Your task to perform on an android device: turn off sleep mode Image 0: 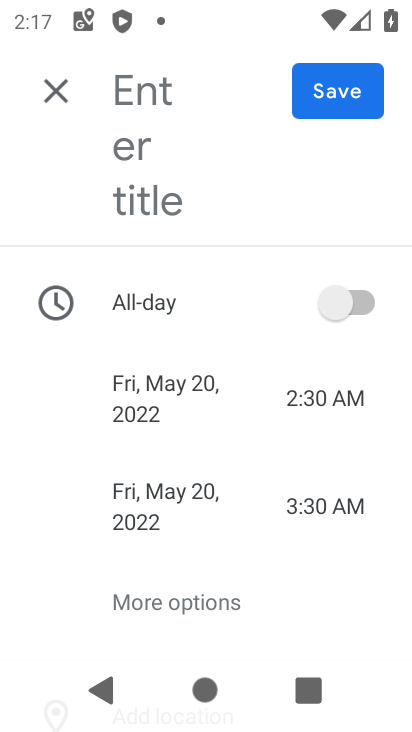
Step 0: press home button
Your task to perform on an android device: turn off sleep mode Image 1: 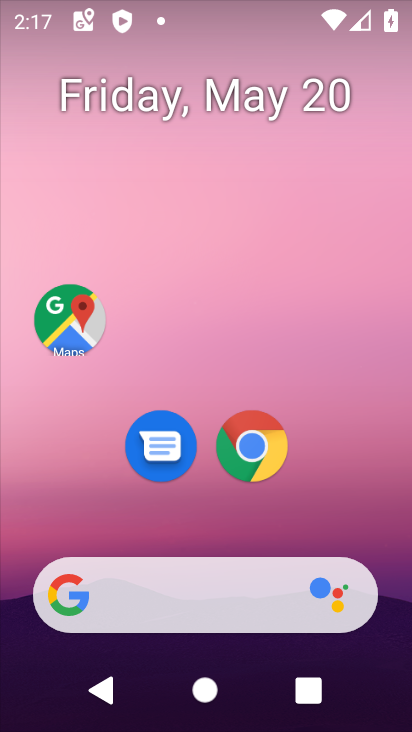
Step 1: drag from (353, 542) to (340, 30)
Your task to perform on an android device: turn off sleep mode Image 2: 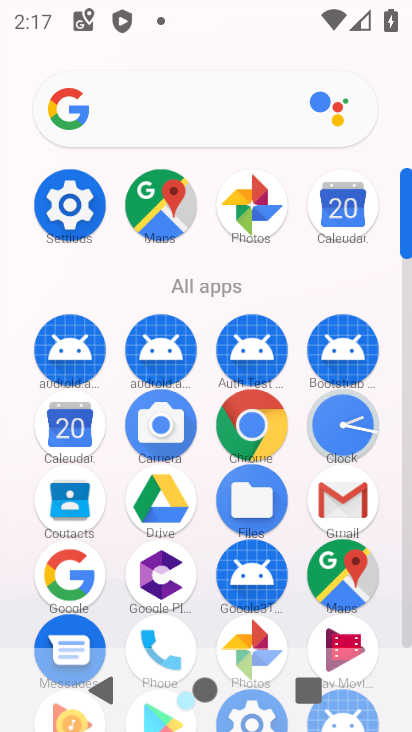
Step 2: click (68, 206)
Your task to perform on an android device: turn off sleep mode Image 3: 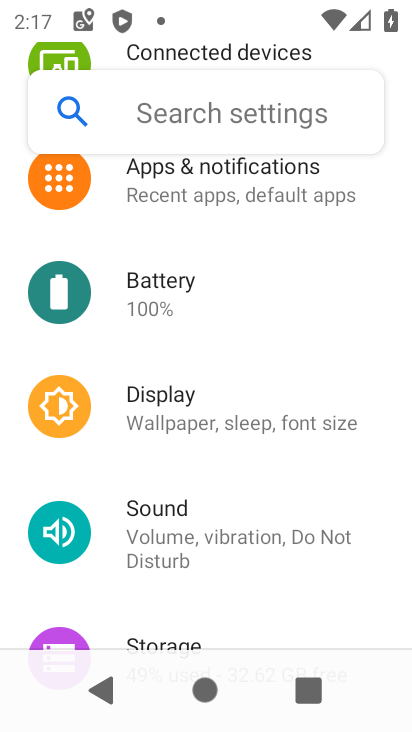
Step 3: click (172, 421)
Your task to perform on an android device: turn off sleep mode Image 4: 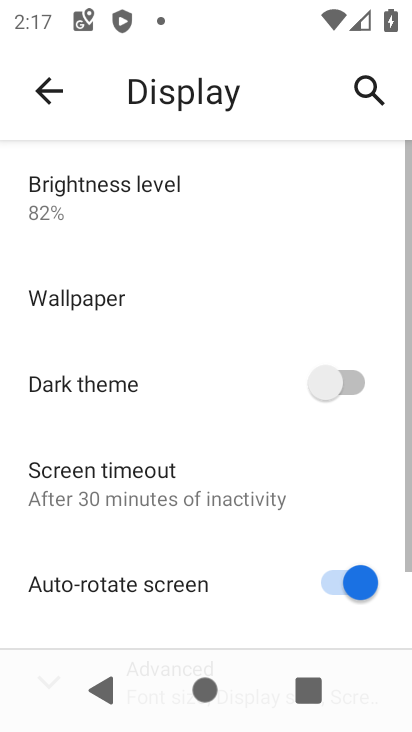
Step 4: drag from (211, 524) to (173, 91)
Your task to perform on an android device: turn off sleep mode Image 5: 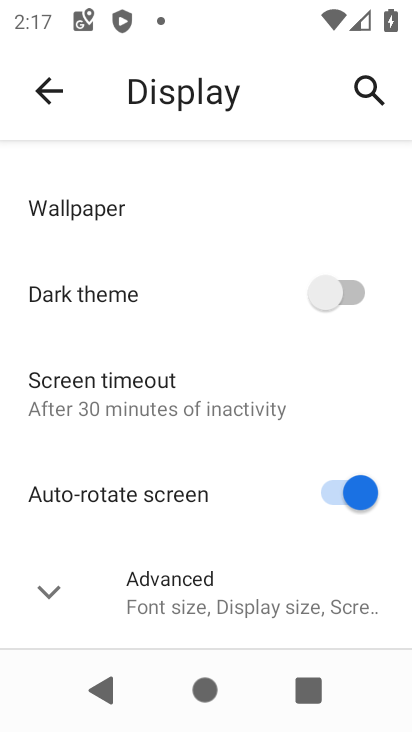
Step 5: click (53, 597)
Your task to perform on an android device: turn off sleep mode Image 6: 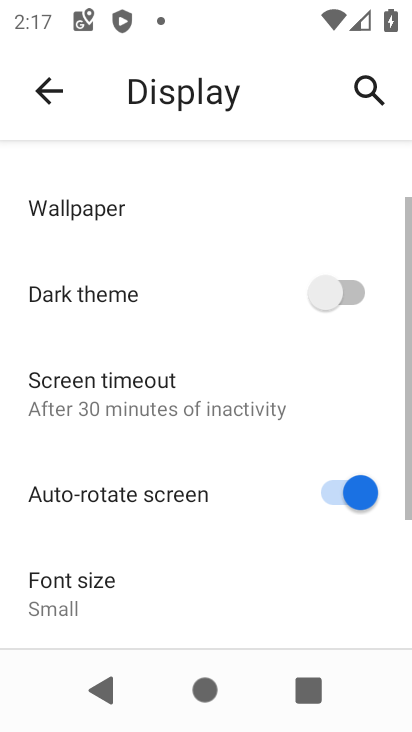
Step 6: task complete